Your task to perform on an android device: check data usage Image 0: 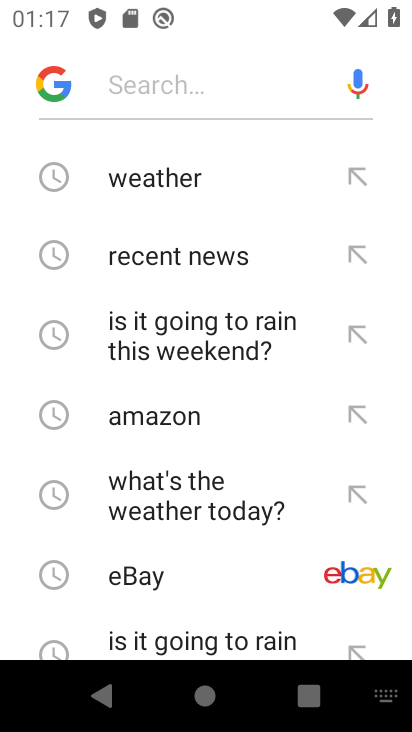
Step 0: press home button
Your task to perform on an android device: check data usage Image 1: 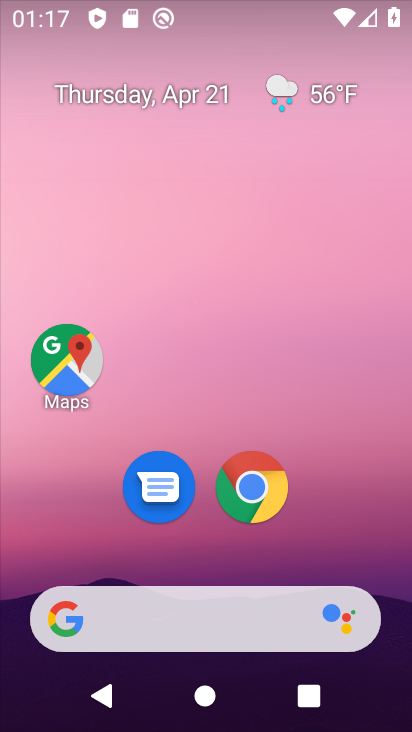
Step 1: drag from (334, 571) to (379, 107)
Your task to perform on an android device: check data usage Image 2: 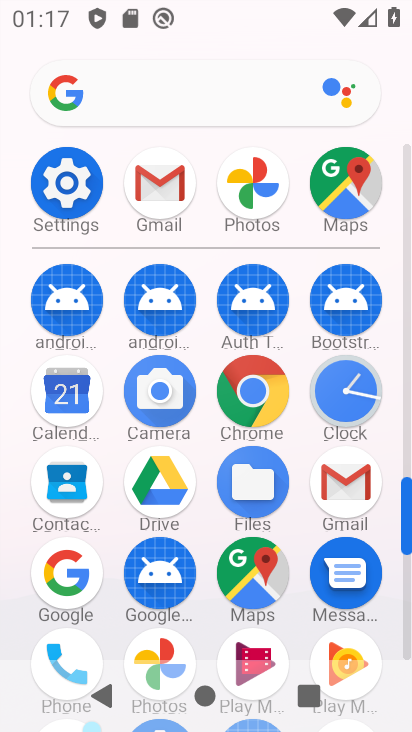
Step 2: click (67, 178)
Your task to perform on an android device: check data usage Image 3: 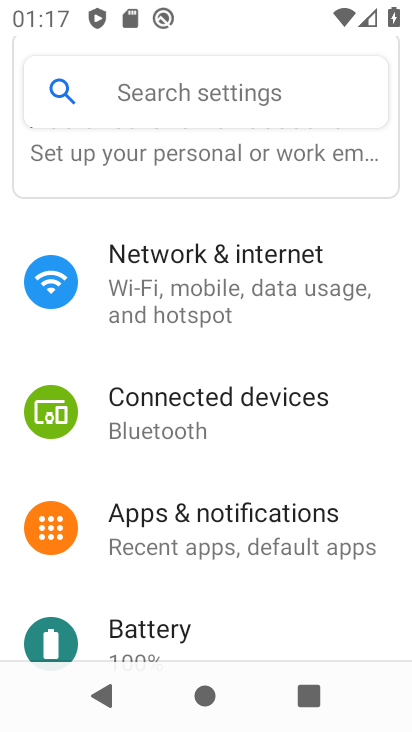
Step 3: drag from (204, 500) to (201, 376)
Your task to perform on an android device: check data usage Image 4: 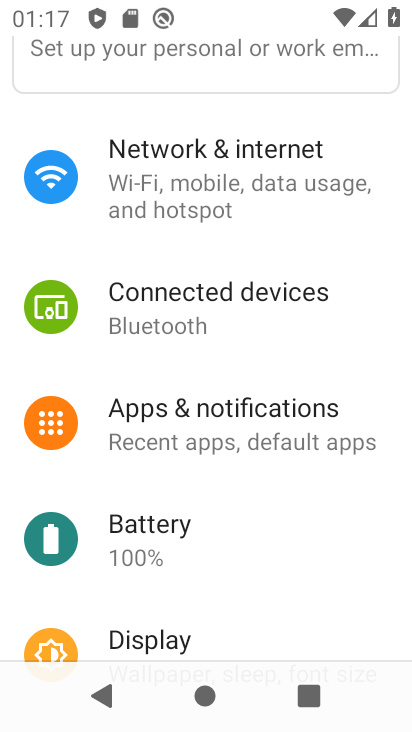
Step 4: click (235, 210)
Your task to perform on an android device: check data usage Image 5: 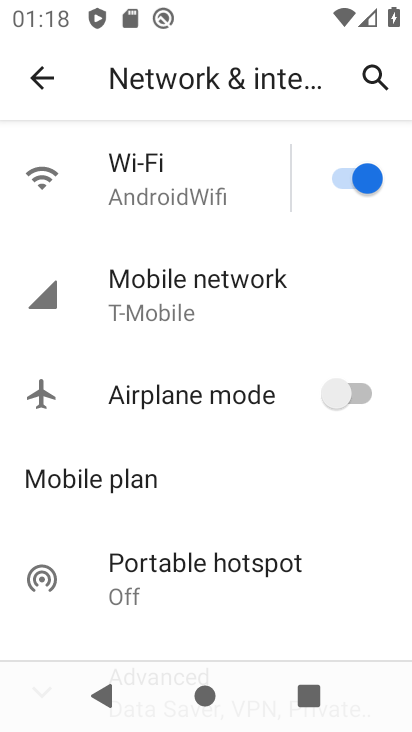
Step 5: click (173, 284)
Your task to perform on an android device: check data usage Image 6: 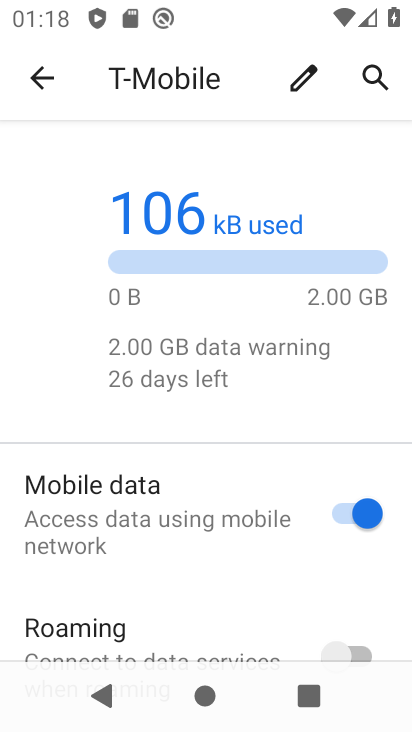
Step 6: drag from (216, 540) to (275, 206)
Your task to perform on an android device: check data usage Image 7: 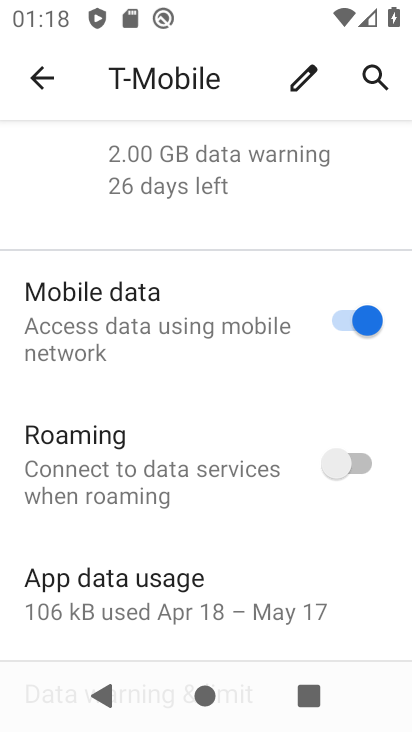
Step 7: click (155, 579)
Your task to perform on an android device: check data usage Image 8: 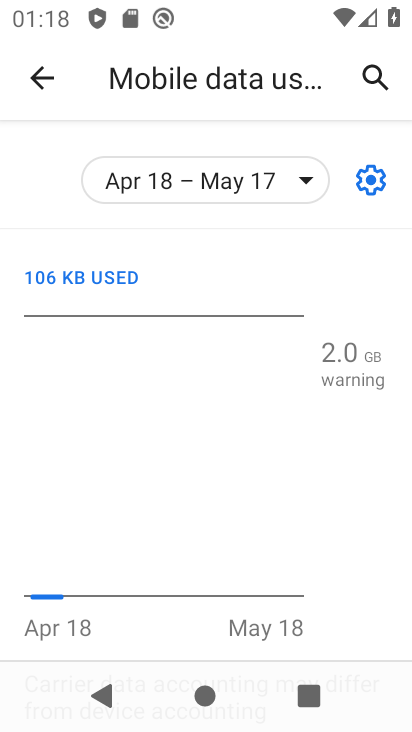
Step 8: task complete